Your task to perform on an android device: Open Google Chrome and open the bookmarks view Image 0: 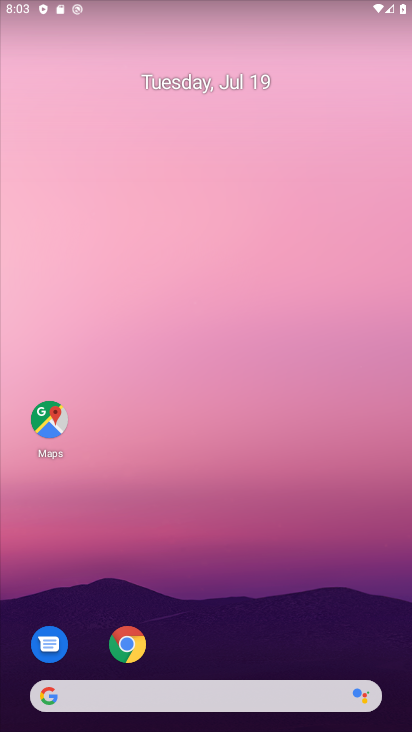
Step 0: click (129, 653)
Your task to perform on an android device: Open Google Chrome and open the bookmarks view Image 1: 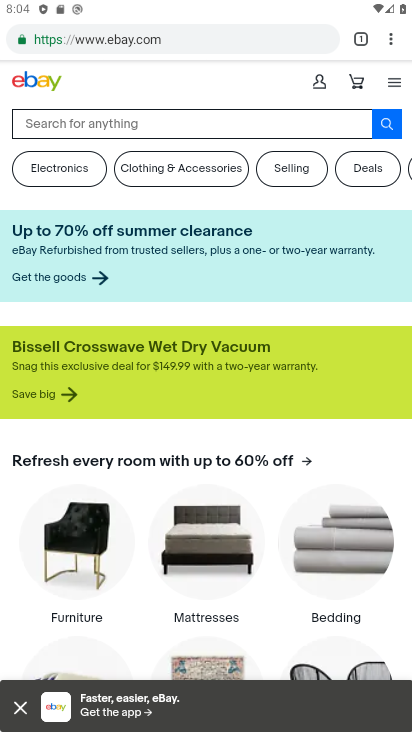
Step 1: click (386, 31)
Your task to perform on an android device: Open Google Chrome and open the bookmarks view Image 2: 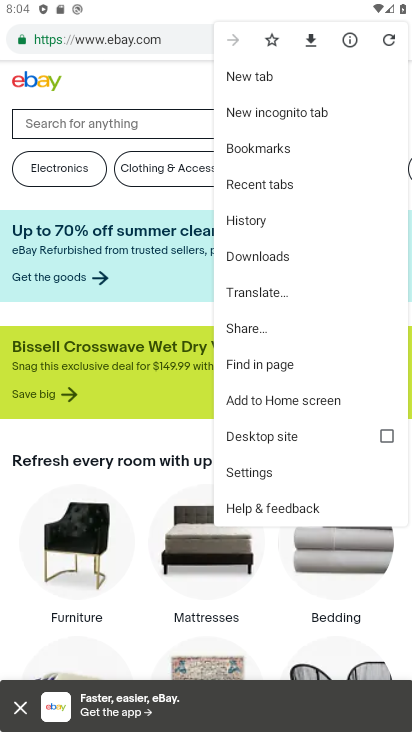
Step 2: click (301, 153)
Your task to perform on an android device: Open Google Chrome and open the bookmarks view Image 3: 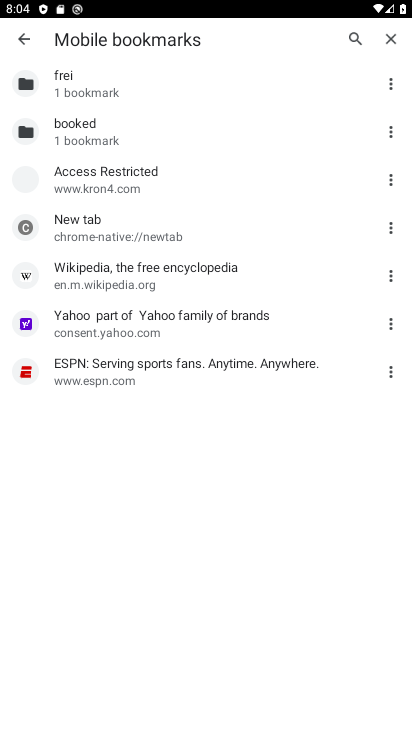
Step 3: task complete